Your task to perform on an android device: refresh tabs in the chrome app Image 0: 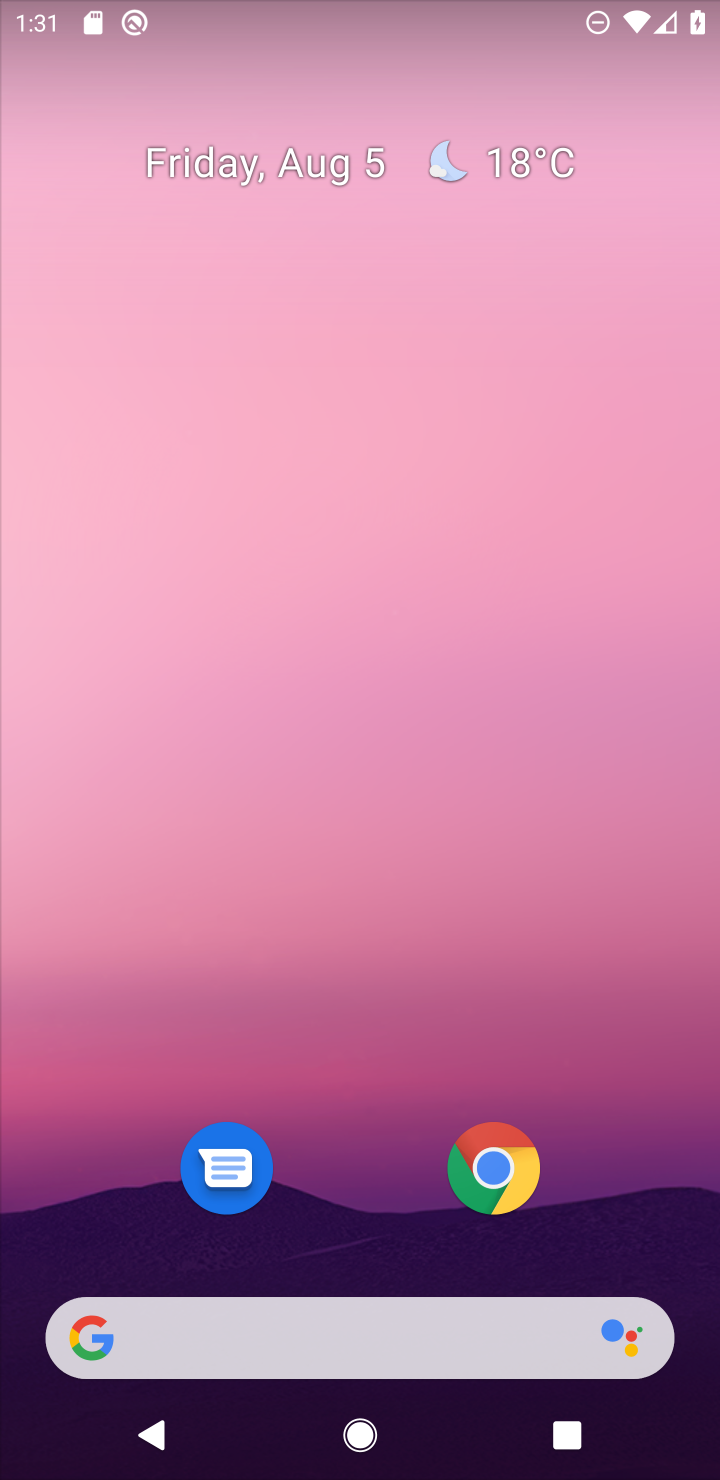
Step 0: drag from (412, 780) to (486, 23)
Your task to perform on an android device: refresh tabs in the chrome app Image 1: 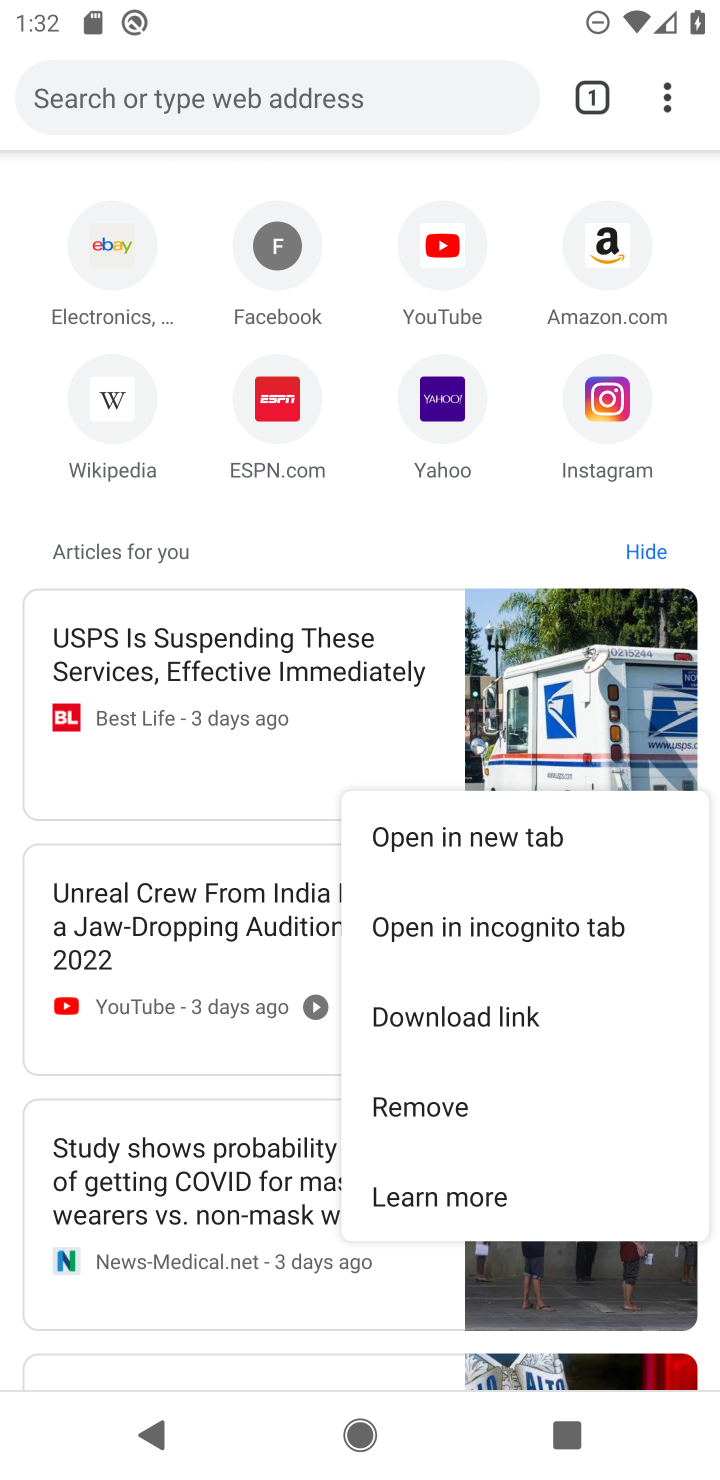
Step 1: click (674, 98)
Your task to perform on an android device: refresh tabs in the chrome app Image 2: 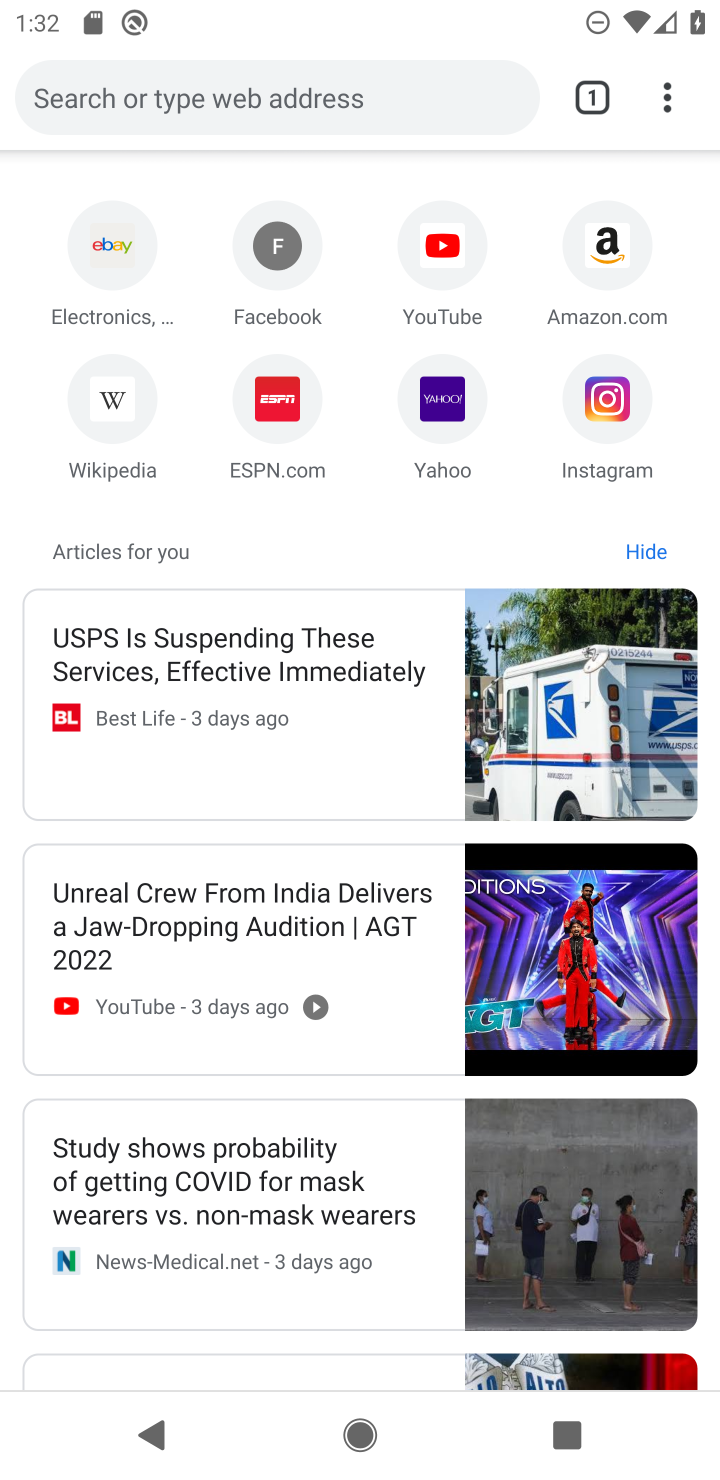
Step 2: click (673, 90)
Your task to perform on an android device: refresh tabs in the chrome app Image 3: 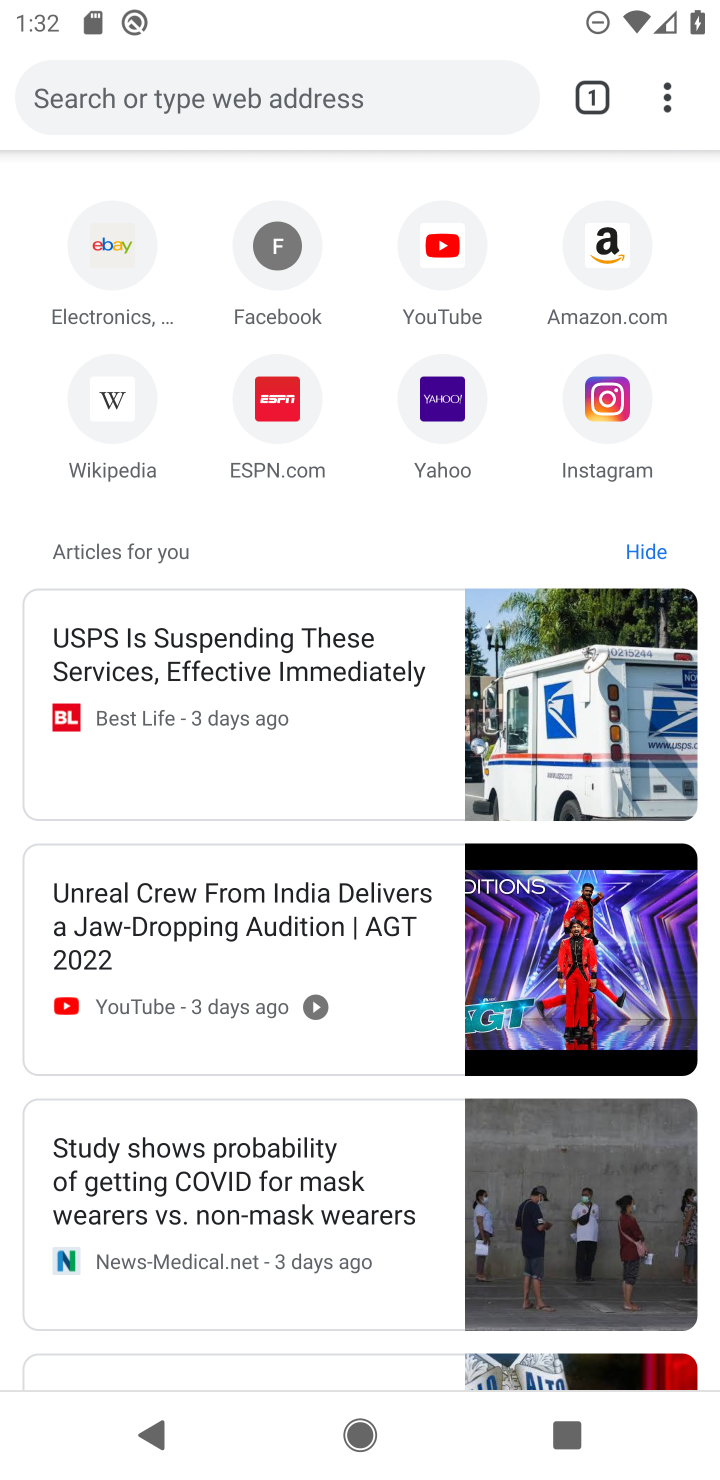
Step 3: task complete